Your task to perform on an android device: Show me recent news Image 0: 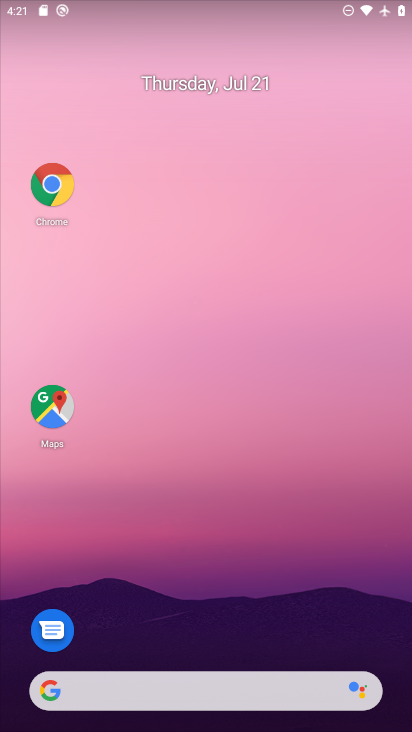
Step 0: click (211, 693)
Your task to perform on an android device: Show me recent news Image 1: 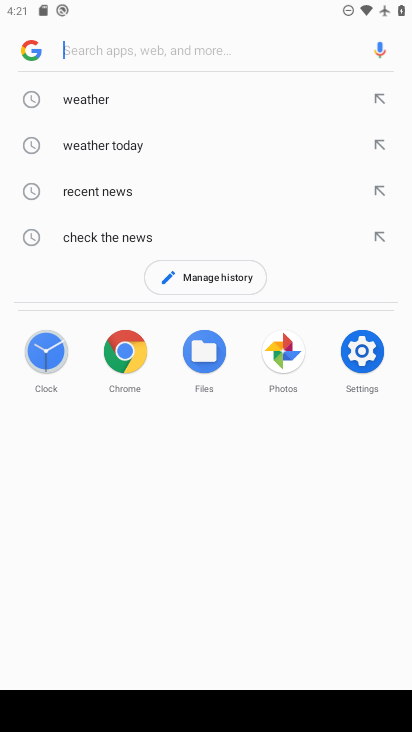
Step 1: click (105, 197)
Your task to perform on an android device: Show me recent news Image 2: 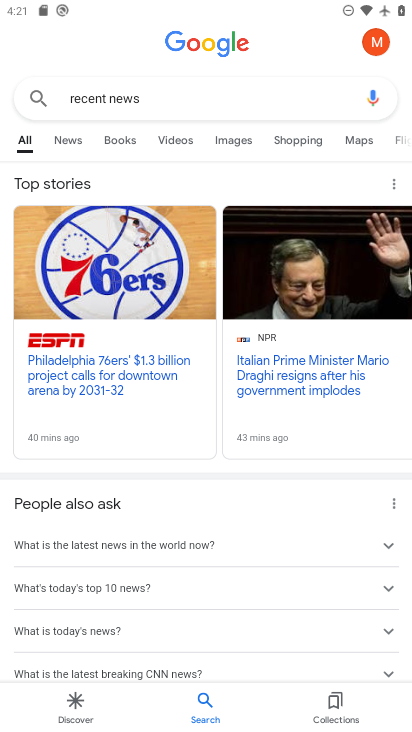
Step 2: task complete